Your task to perform on an android device: Show me popular videos on Youtube Image 0: 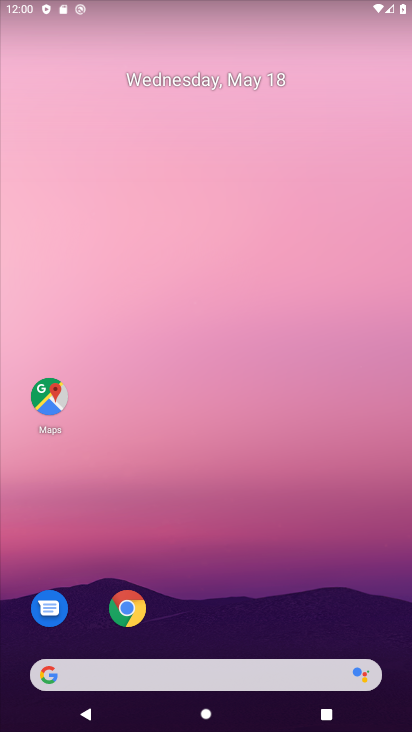
Step 0: drag from (249, 696) to (256, 156)
Your task to perform on an android device: Show me popular videos on Youtube Image 1: 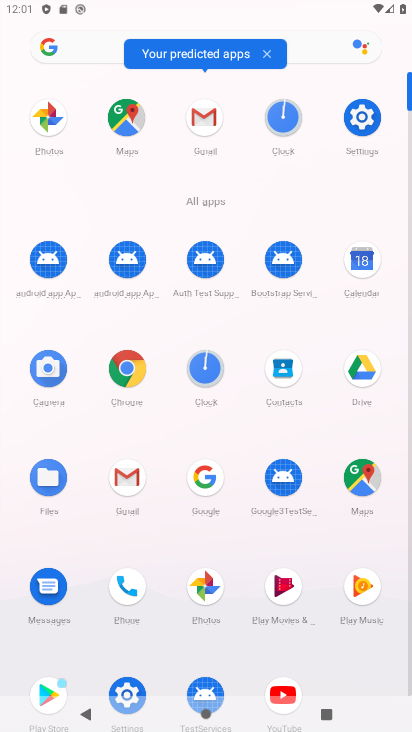
Step 1: click (281, 673)
Your task to perform on an android device: Show me popular videos on Youtube Image 2: 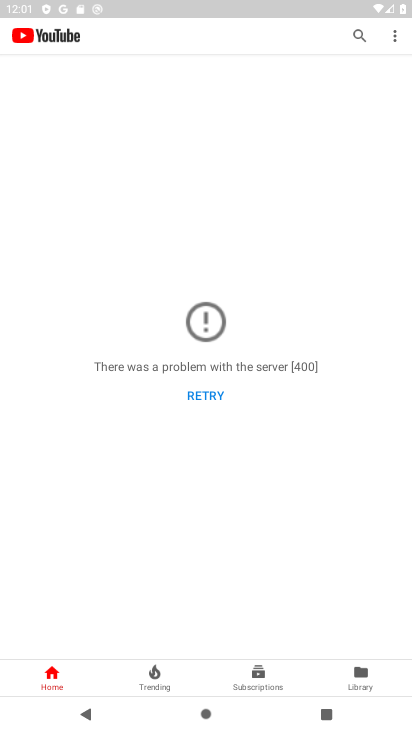
Step 2: click (354, 32)
Your task to perform on an android device: Show me popular videos on Youtube Image 3: 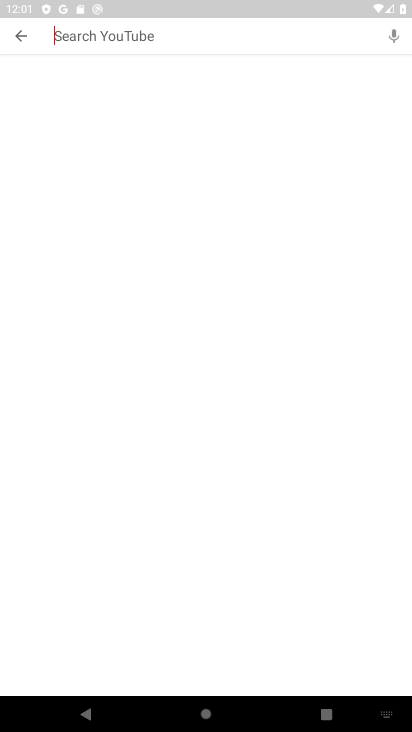
Step 3: click (375, 714)
Your task to perform on an android device: Show me popular videos on Youtube Image 4: 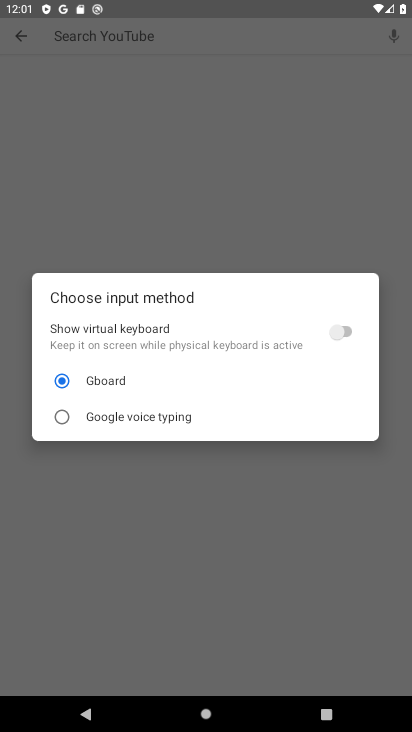
Step 4: click (339, 331)
Your task to perform on an android device: Show me popular videos on Youtube Image 5: 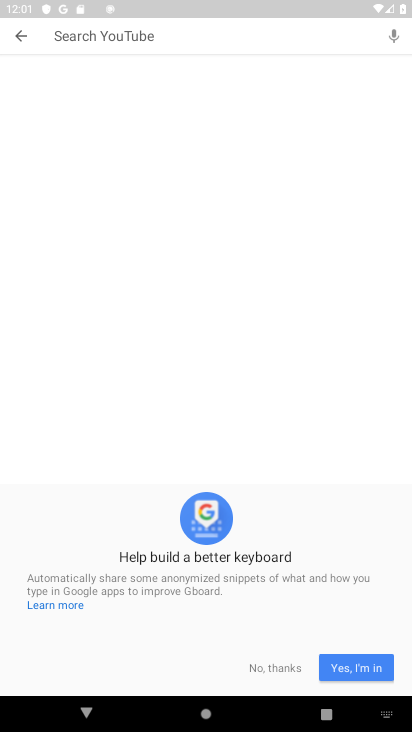
Step 5: click (267, 660)
Your task to perform on an android device: Show me popular videos on Youtube Image 6: 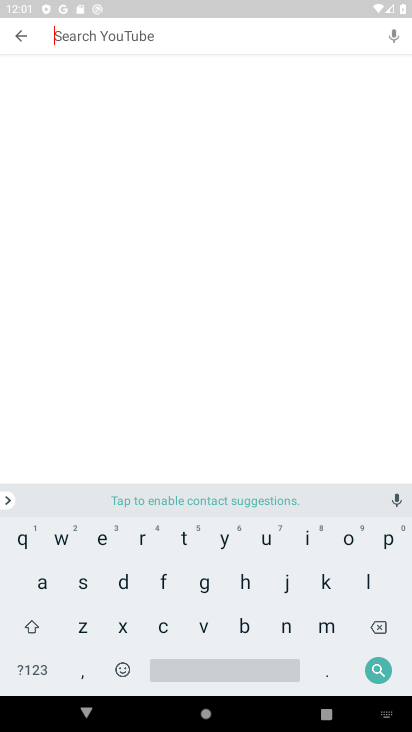
Step 6: click (383, 535)
Your task to perform on an android device: Show me popular videos on Youtube Image 7: 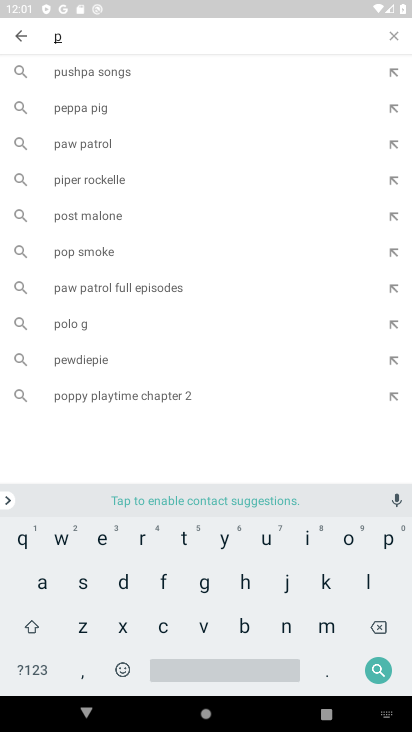
Step 7: click (344, 542)
Your task to perform on an android device: Show me popular videos on Youtube Image 8: 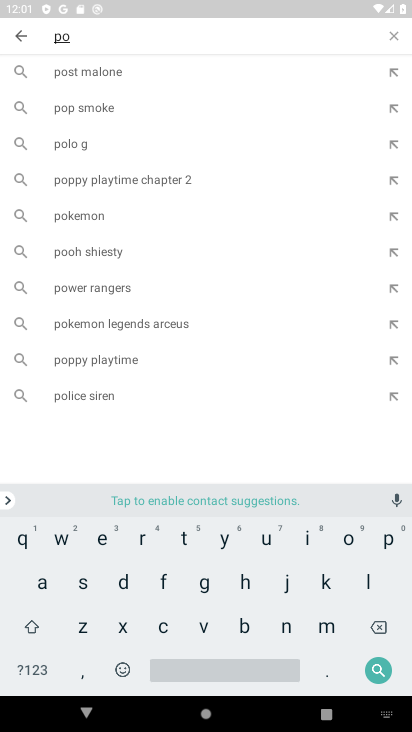
Step 8: click (386, 545)
Your task to perform on an android device: Show me popular videos on Youtube Image 9: 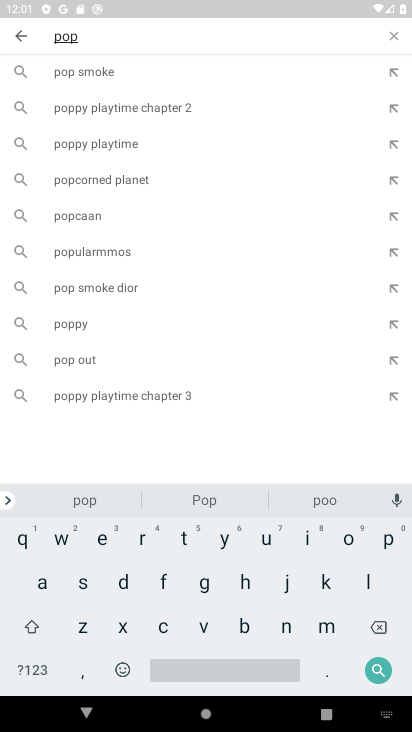
Step 9: click (269, 547)
Your task to perform on an android device: Show me popular videos on Youtube Image 10: 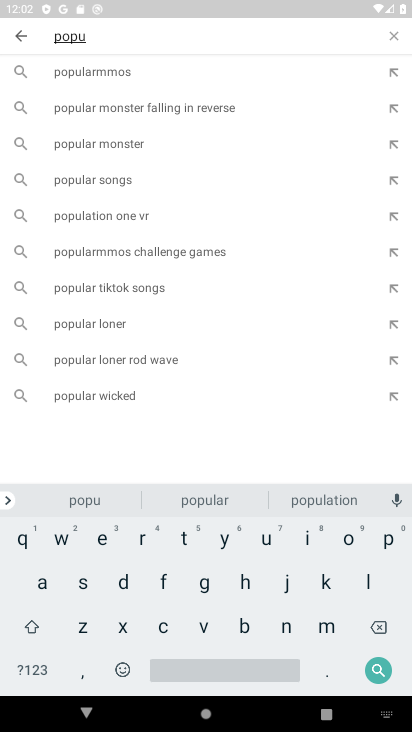
Step 10: click (206, 502)
Your task to perform on an android device: Show me popular videos on Youtube Image 11: 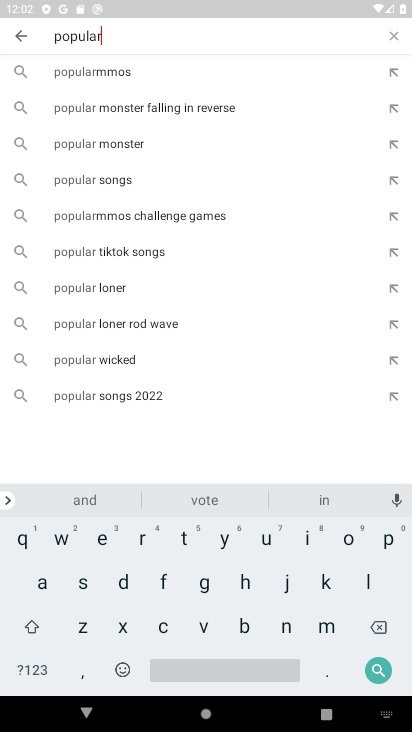
Step 11: click (197, 625)
Your task to perform on an android device: Show me popular videos on Youtube Image 12: 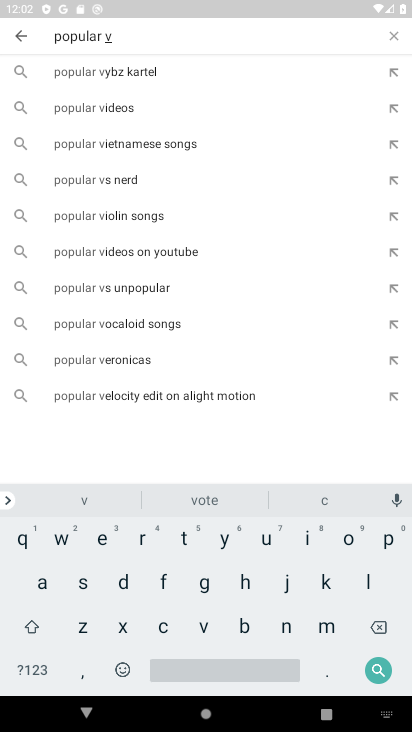
Step 12: click (306, 538)
Your task to perform on an android device: Show me popular videos on Youtube Image 13: 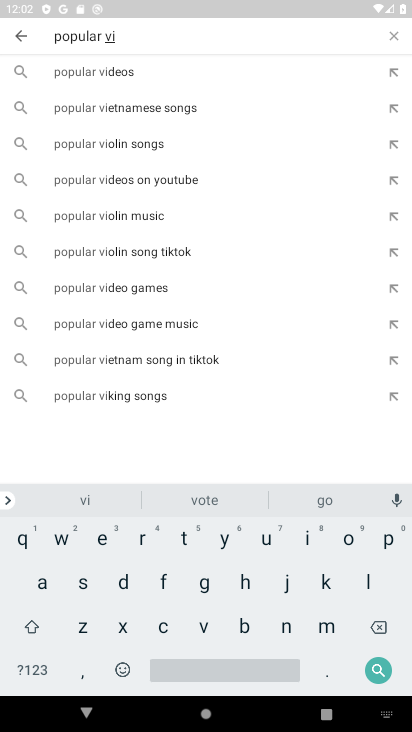
Step 13: click (134, 76)
Your task to perform on an android device: Show me popular videos on Youtube Image 14: 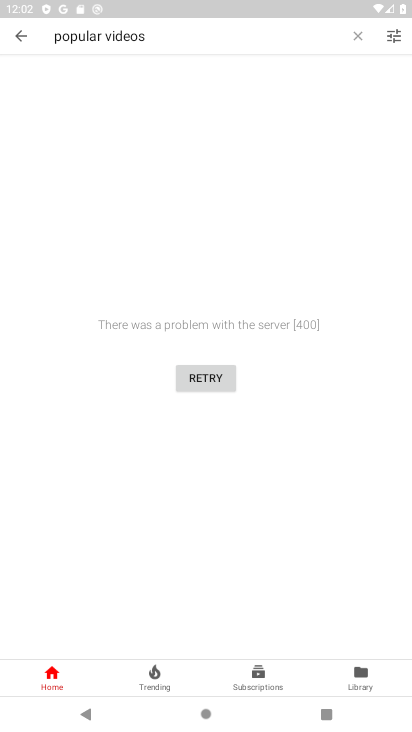
Step 14: click (202, 367)
Your task to perform on an android device: Show me popular videos on Youtube Image 15: 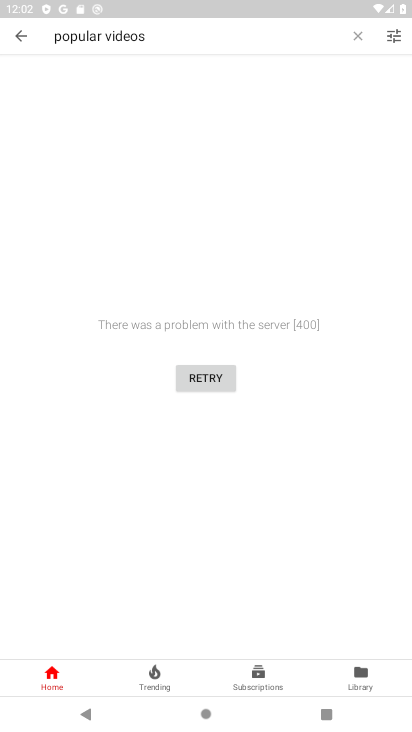
Step 15: task complete